Your task to perform on an android device: Clear all items from cart on amazon.com. Add amazon basics triple a to the cart on amazon.com Image 0: 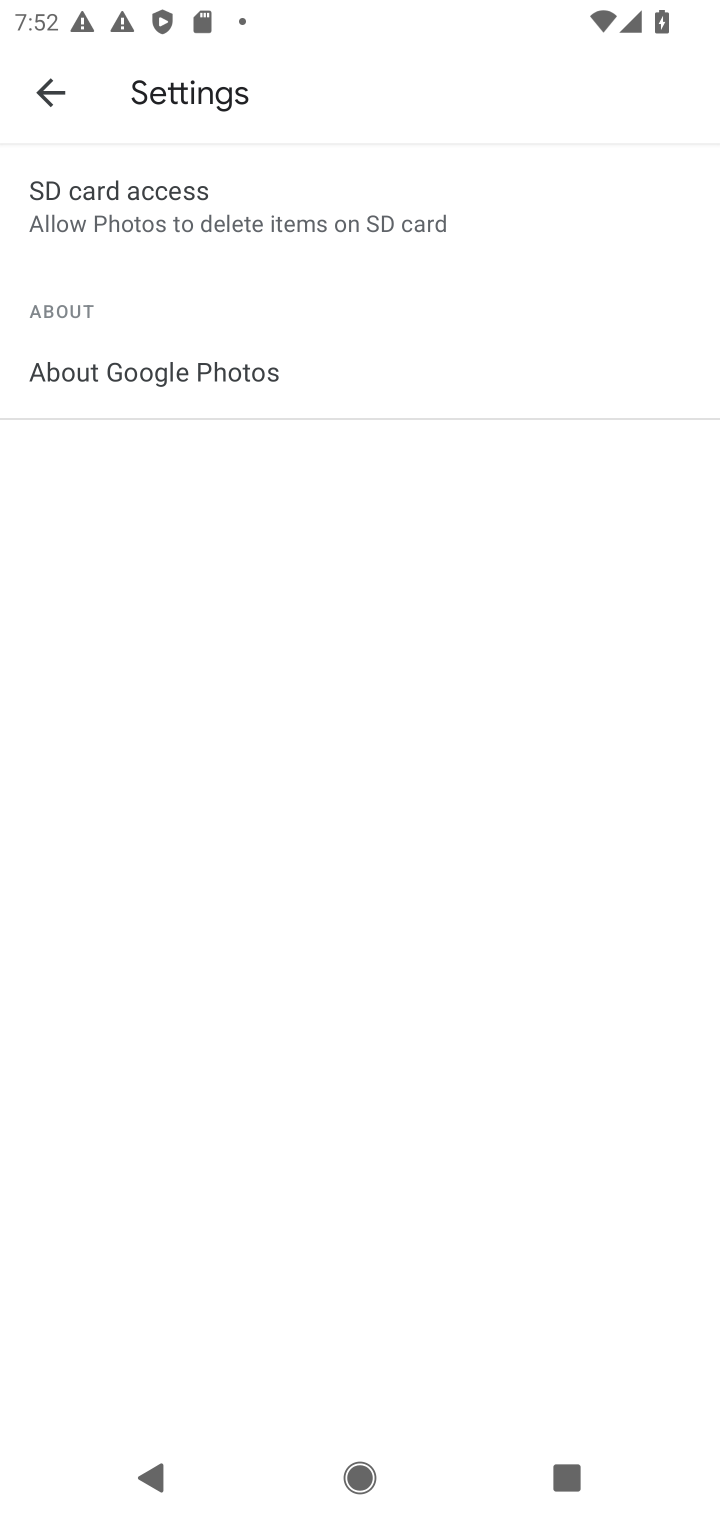
Step 0: press home button
Your task to perform on an android device: Clear all items from cart on amazon.com. Add amazon basics triple a to the cart on amazon.com Image 1: 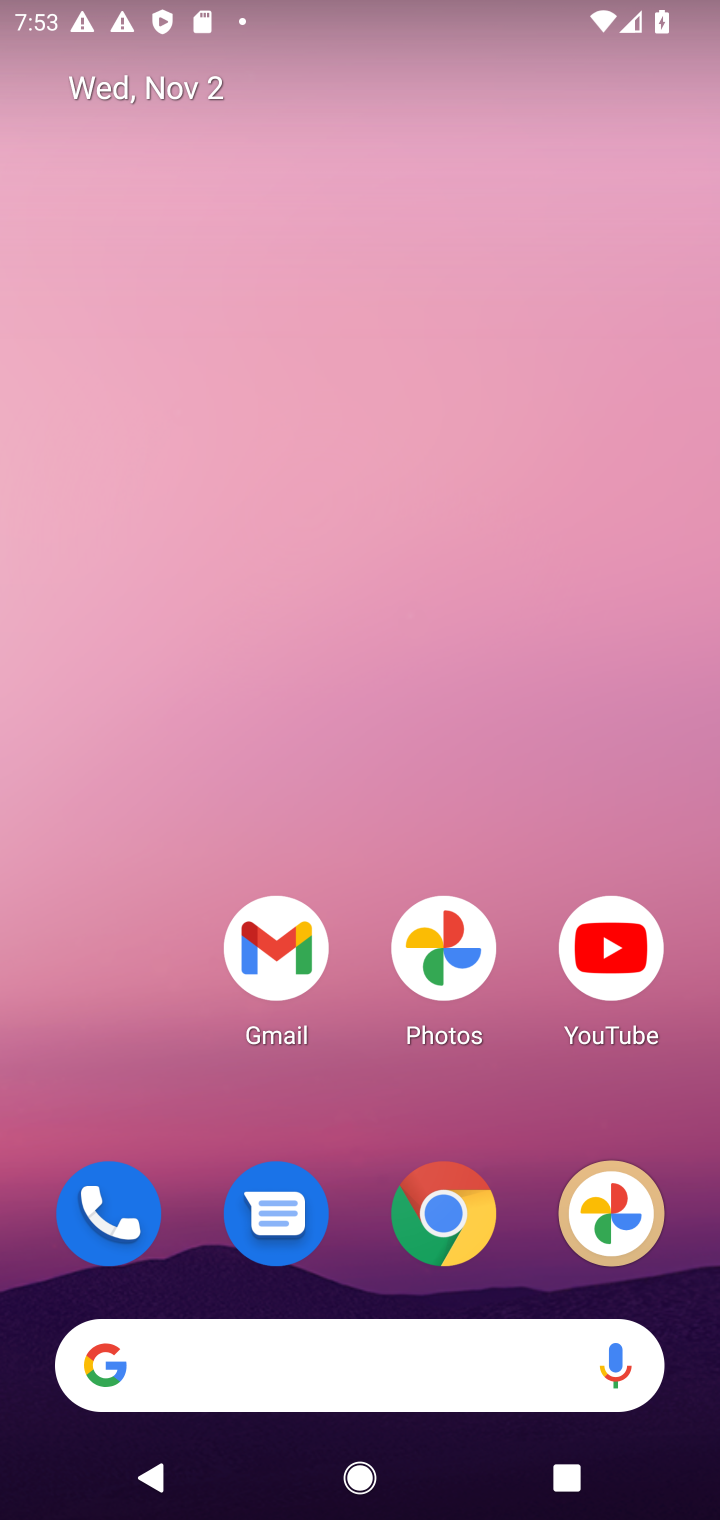
Step 1: click (446, 1227)
Your task to perform on an android device: Clear all items from cart on amazon.com. Add amazon basics triple a to the cart on amazon.com Image 2: 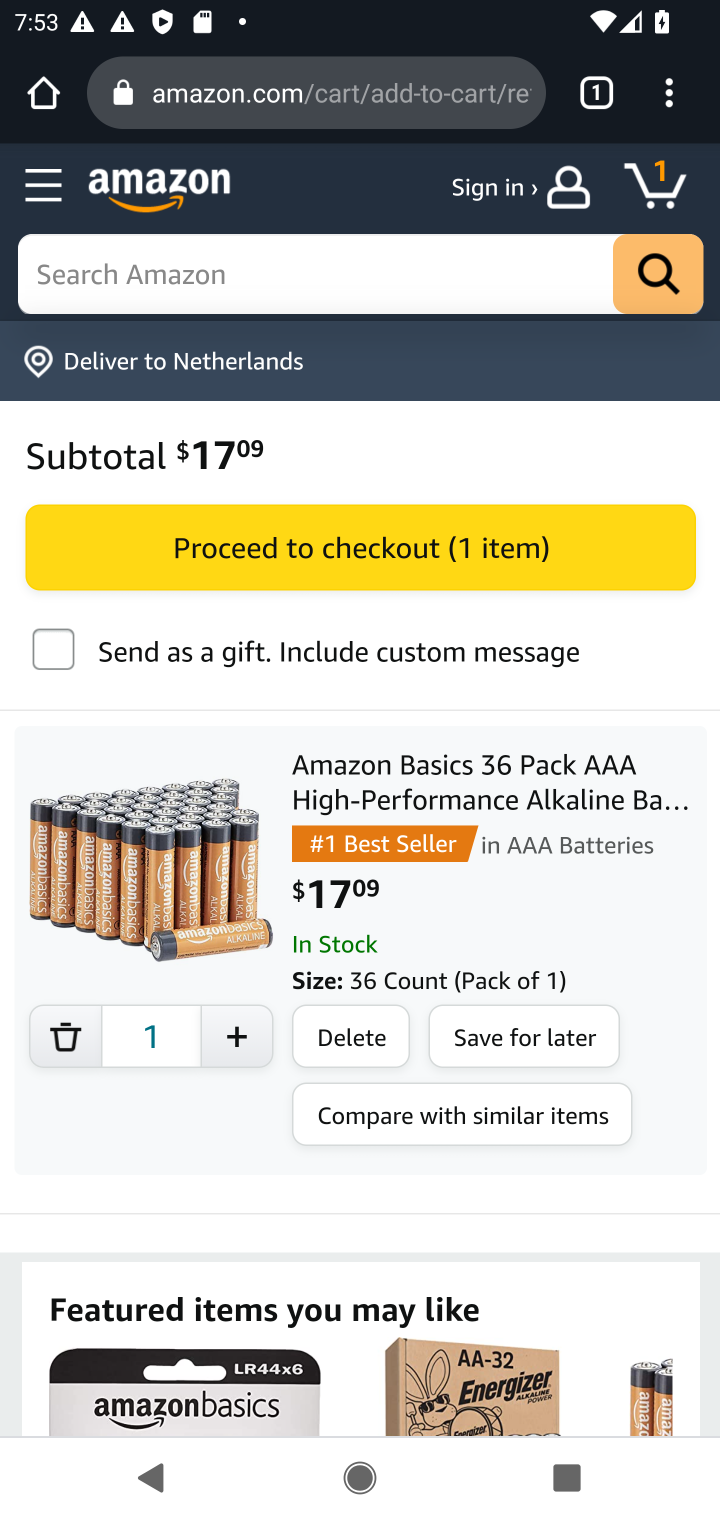
Step 2: click (652, 192)
Your task to perform on an android device: Clear all items from cart on amazon.com. Add amazon basics triple a to the cart on amazon.com Image 3: 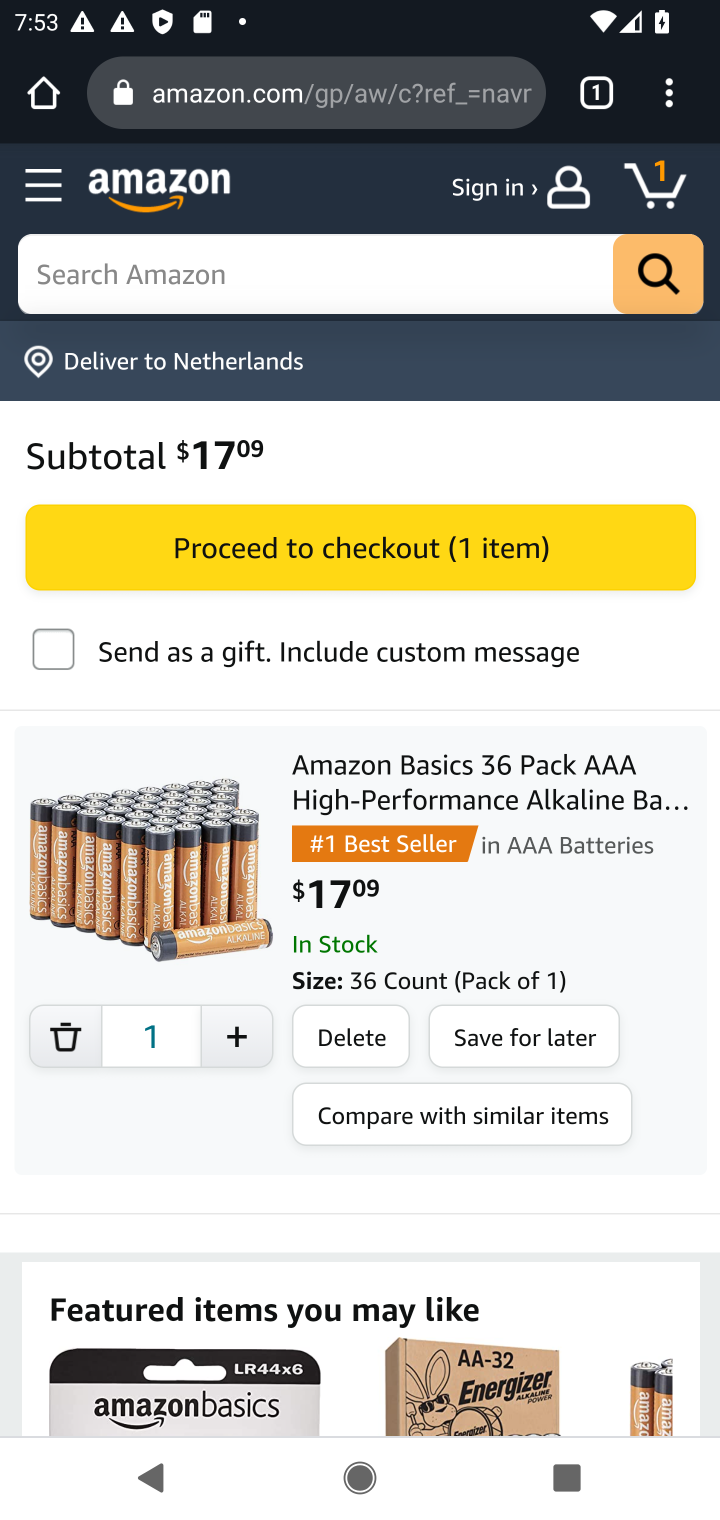
Step 3: click (372, 1044)
Your task to perform on an android device: Clear all items from cart on amazon.com. Add amazon basics triple a to the cart on amazon.com Image 4: 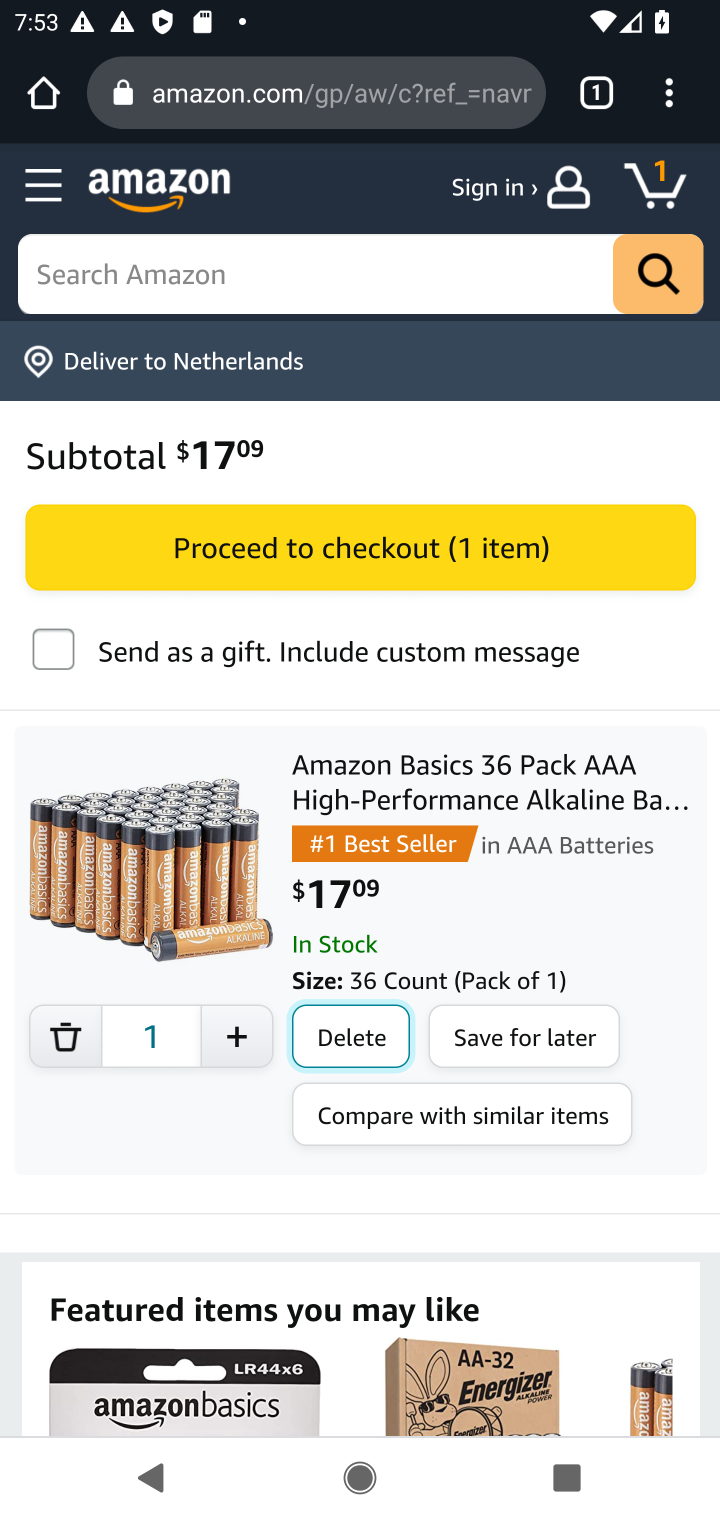
Step 4: click (352, 1040)
Your task to perform on an android device: Clear all items from cart on amazon.com. Add amazon basics triple a to the cart on amazon.com Image 5: 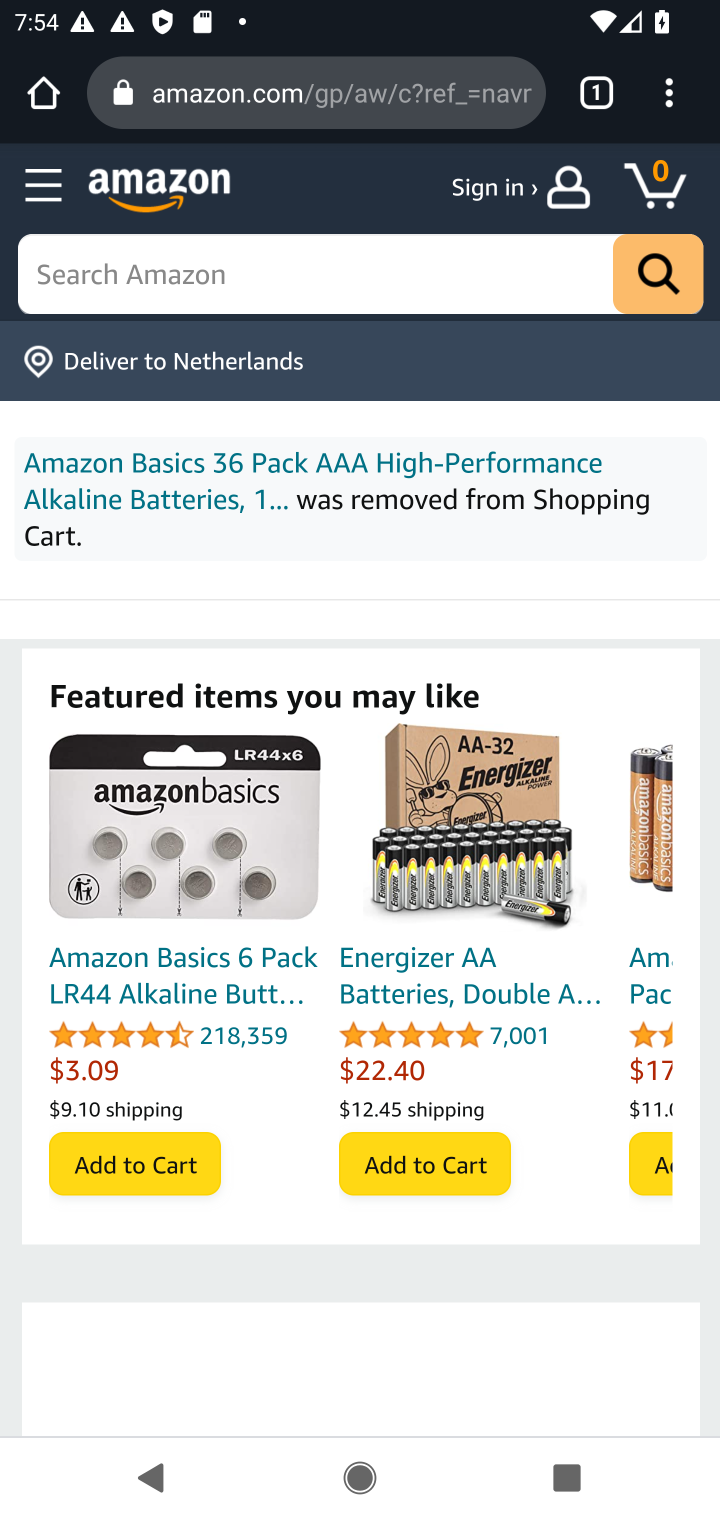
Step 5: click (313, 266)
Your task to perform on an android device: Clear all items from cart on amazon.com. Add amazon basics triple a to the cart on amazon.com Image 6: 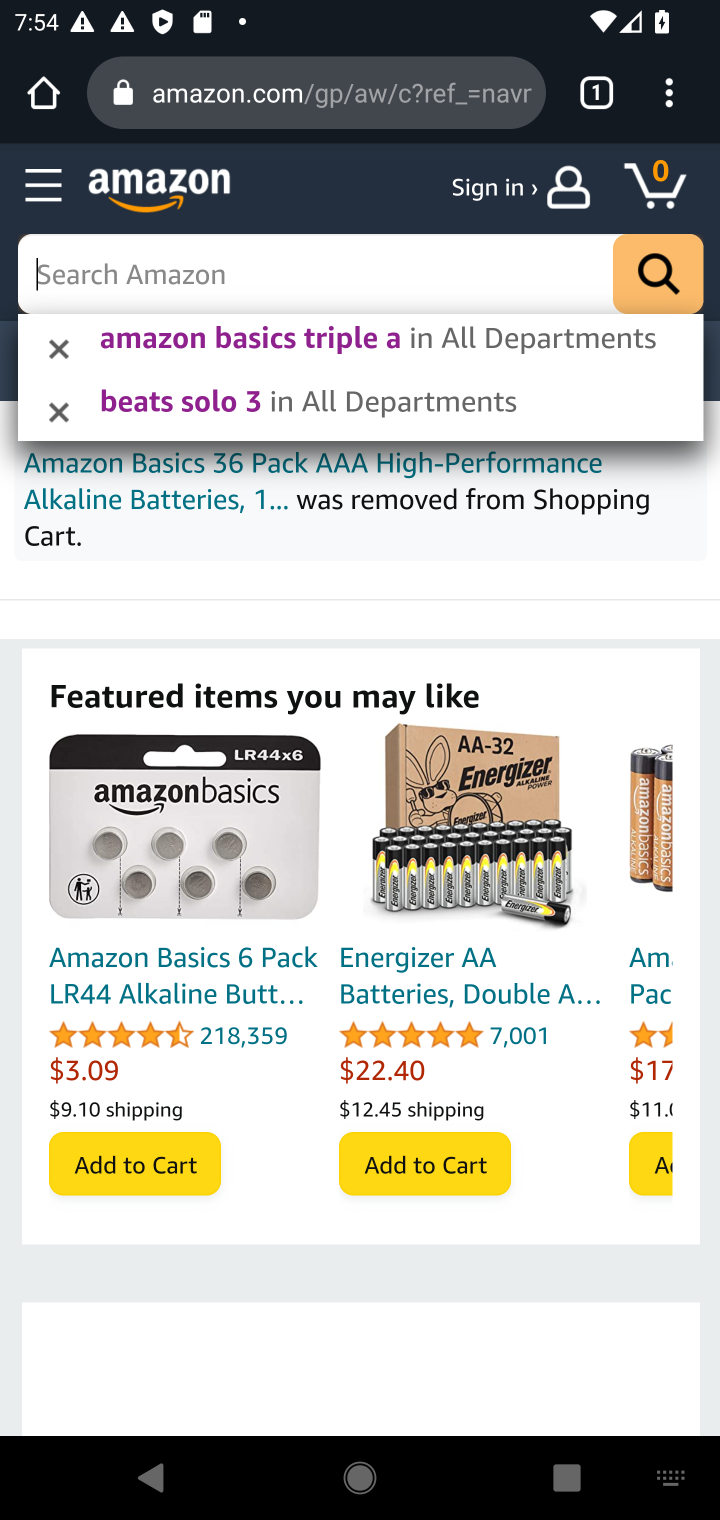
Step 6: type "basics triple a"
Your task to perform on an android device: Clear all items from cart on amazon.com. Add amazon basics triple a to the cart on amazon.com Image 7: 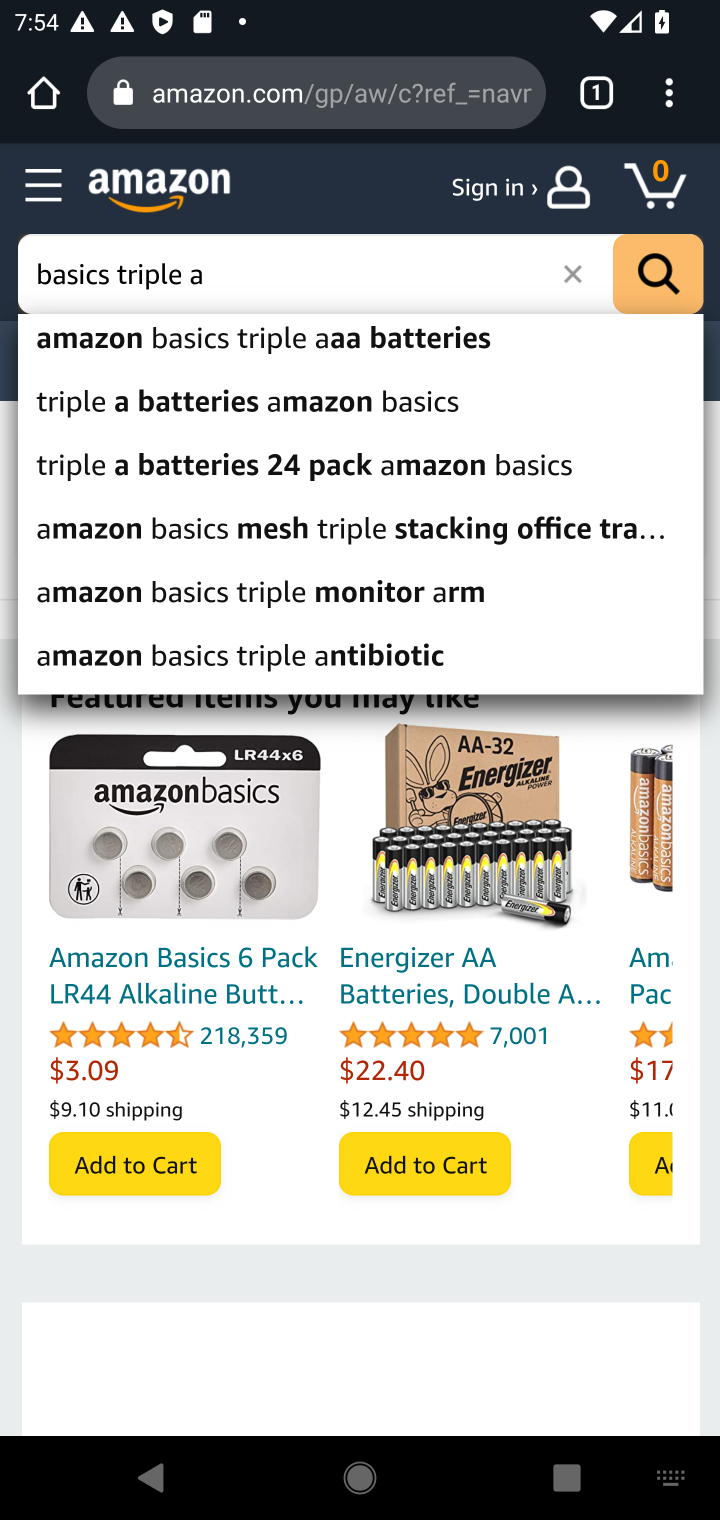
Step 7: click (235, 343)
Your task to perform on an android device: Clear all items from cart on amazon.com. Add amazon basics triple a to the cart on amazon.com Image 8: 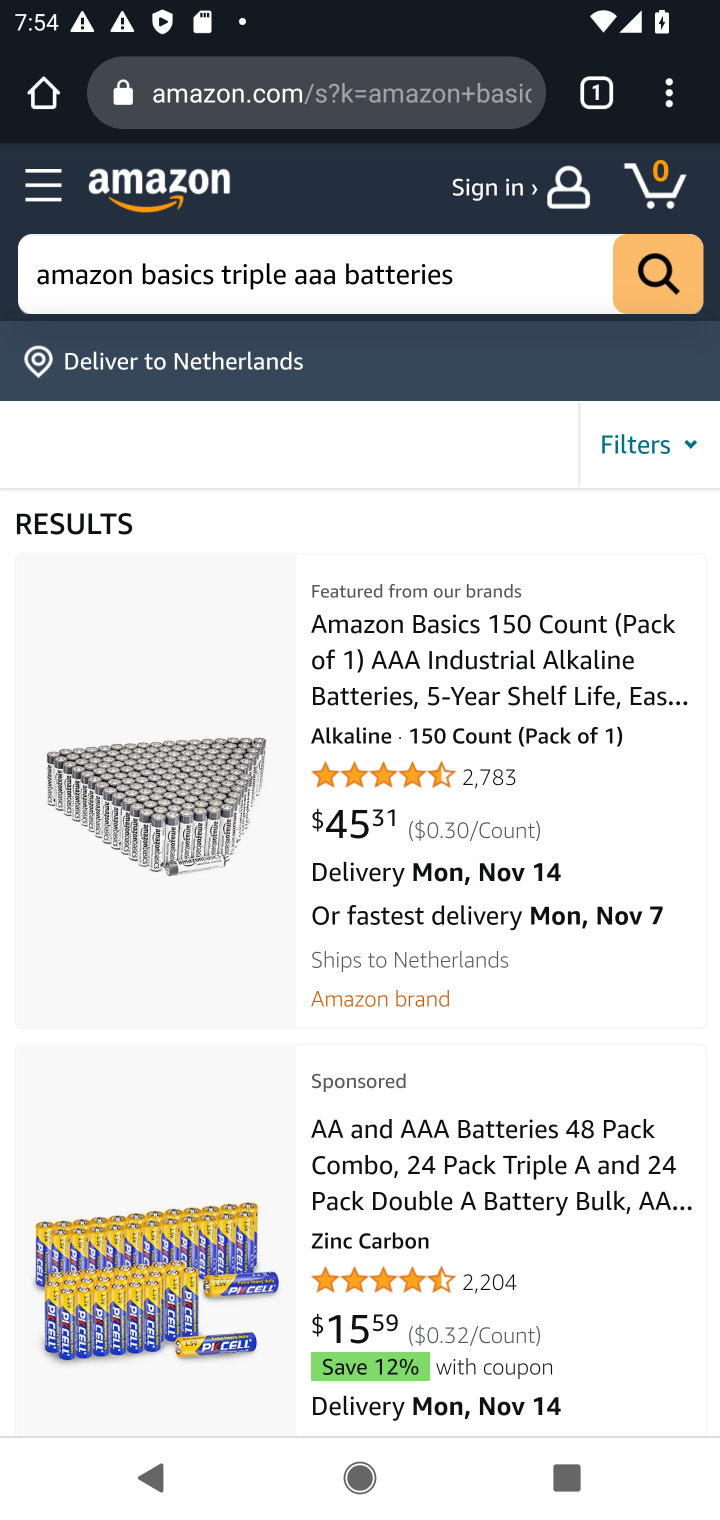
Step 8: click (388, 750)
Your task to perform on an android device: Clear all items from cart on amazon.com. Add amazon basics triple a to the cart on amazon.com Image 9: 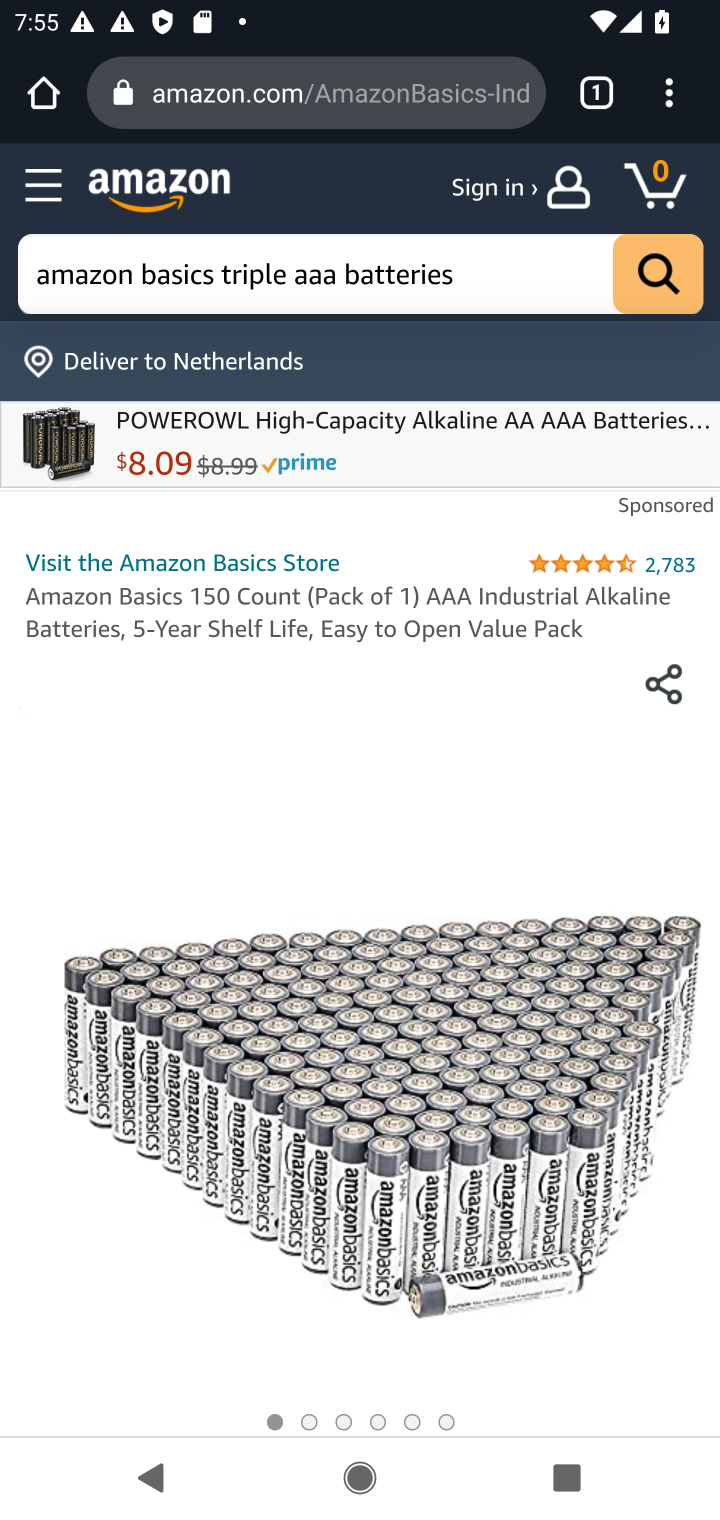
Step 9: drag from (396, 758) to (440, 379)
Your task to perform on an android device: Clear all items from cart on amazon.com. Add amazon basics triple a to the cart on amazon.com Image 10: 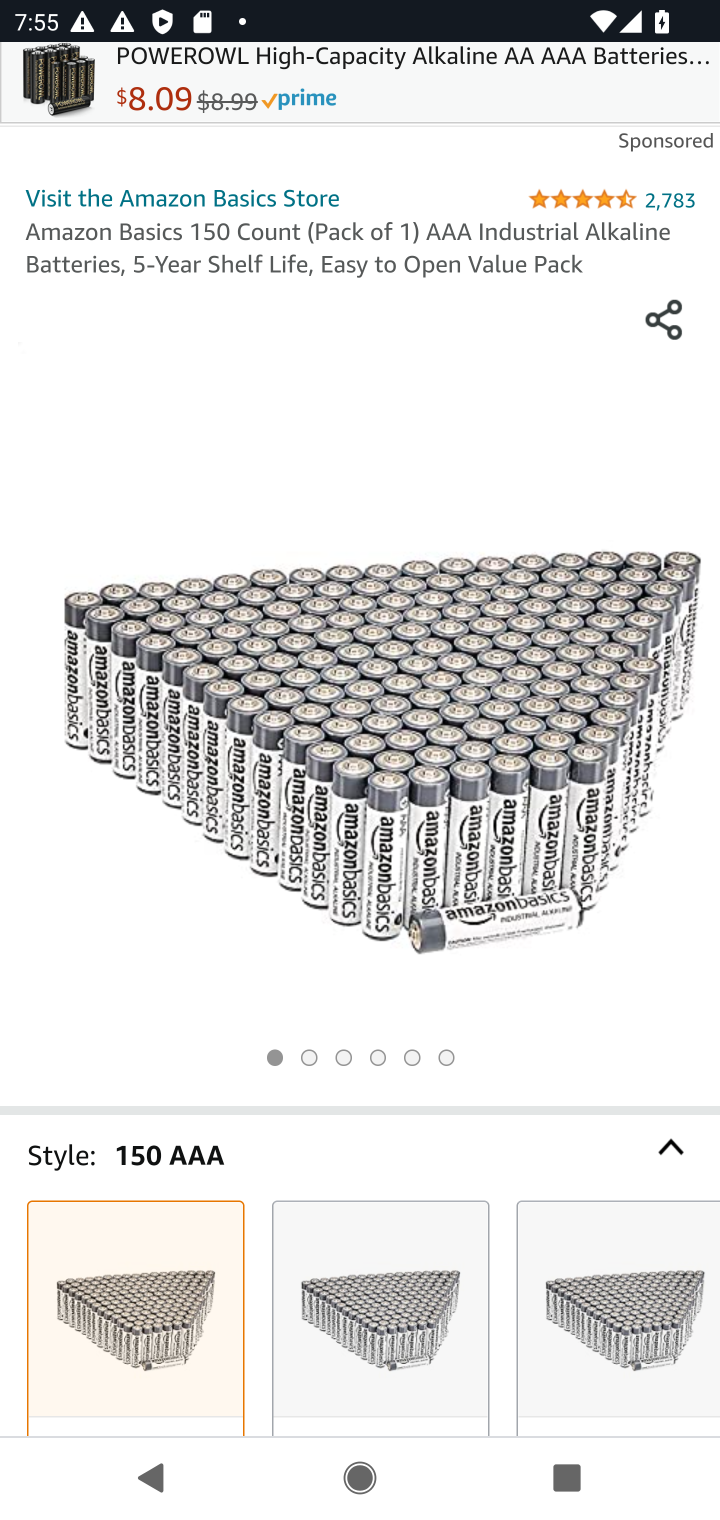
Step 10: drag from (318, 877) to (366, 17)
Your task to perform on an android device: Clear all items from cart on amazon.com. Add amazon basics triple a to the cart on amazon.com Image 11: 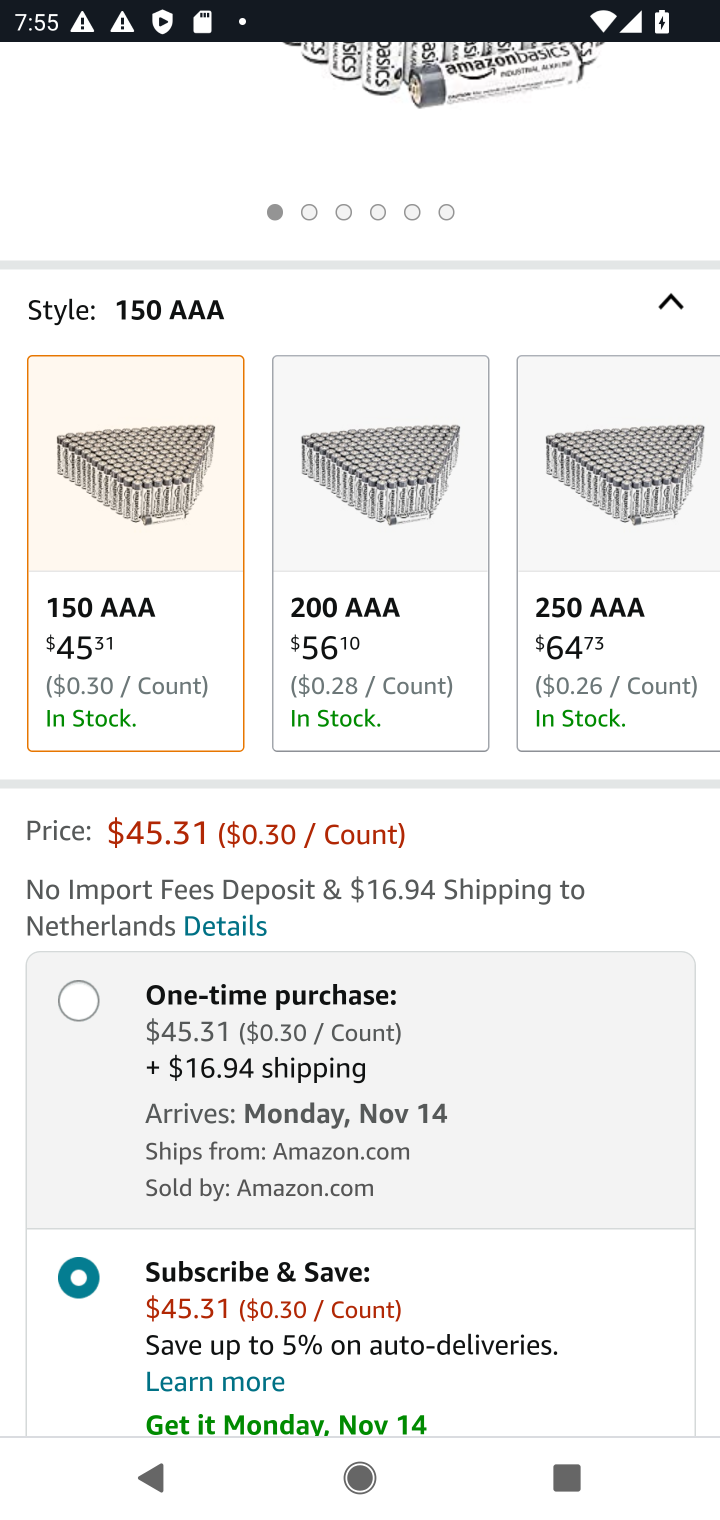
Step 11: click (83, 1015)
Your task to perform on an android device: Clear all items from cart on amazon.com. Add amazon basics triple a to the cart on amazon.com Image 12: 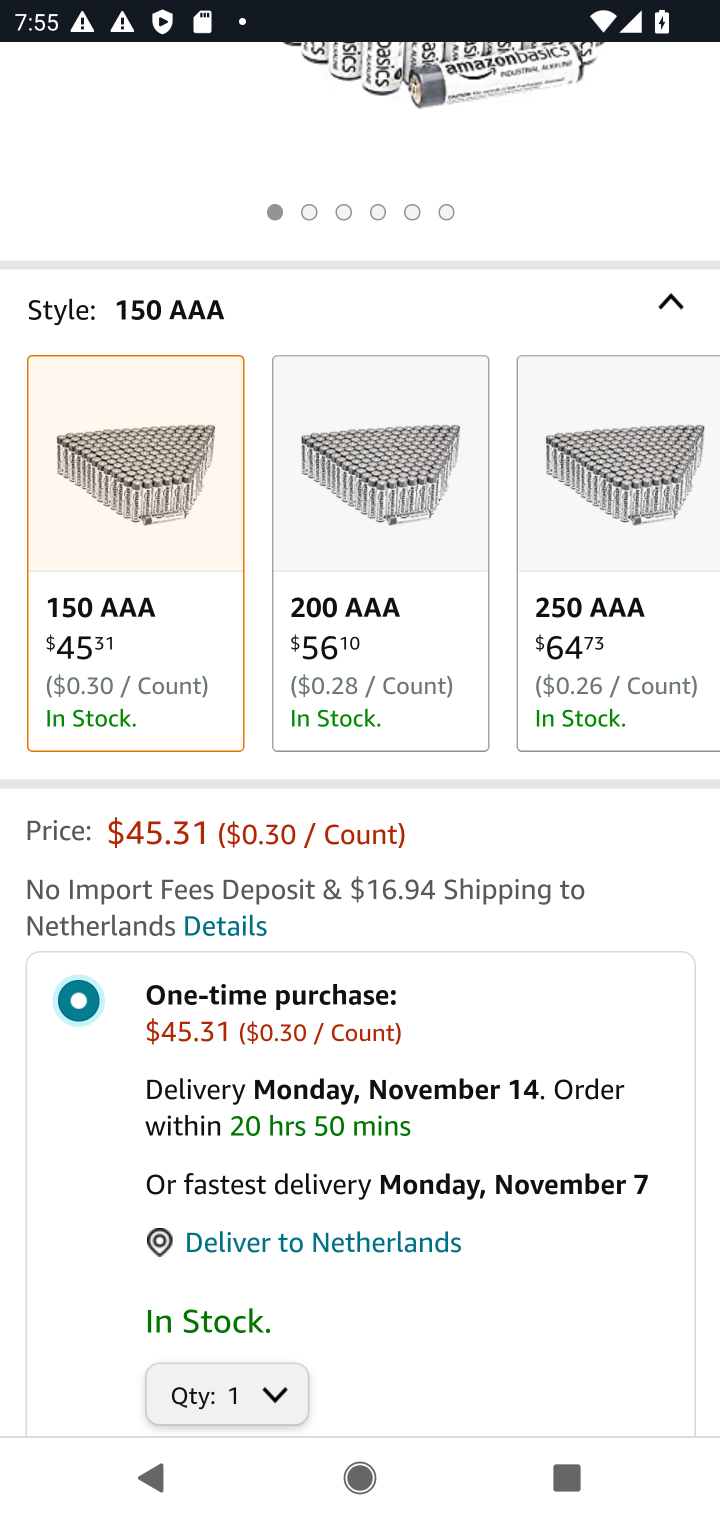
Step 12: drag from (385, 1192) to (401, 508)
Your task to perform on an android device: Clear all items from cart on amazon.com. Add amazon basics triple a to the cart on amazon.com Image 13: 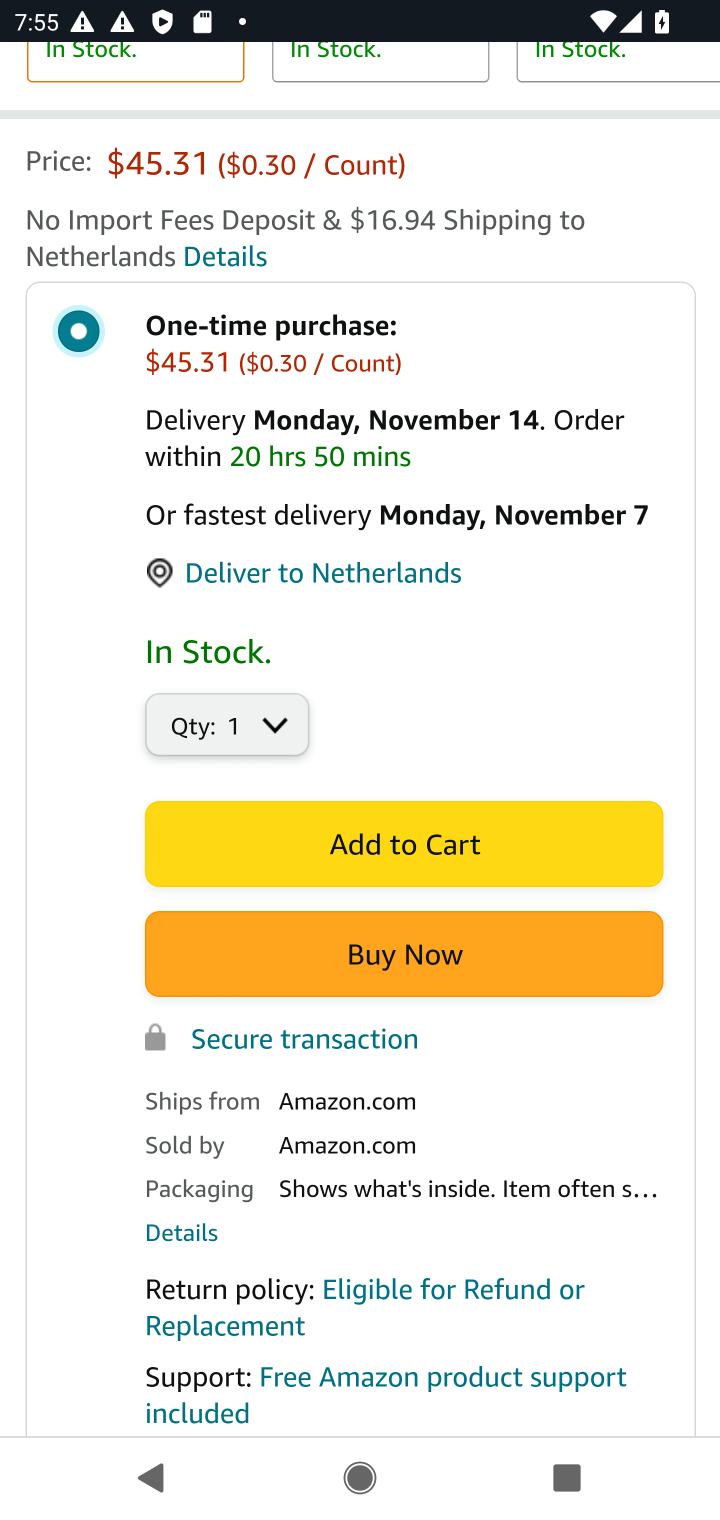
Step 13: click (406, 847)
Your task to perform on an android device: Clear all items from cart on amazon.com. Add amazon basics triple a to the cart on amazon.com Image 14: 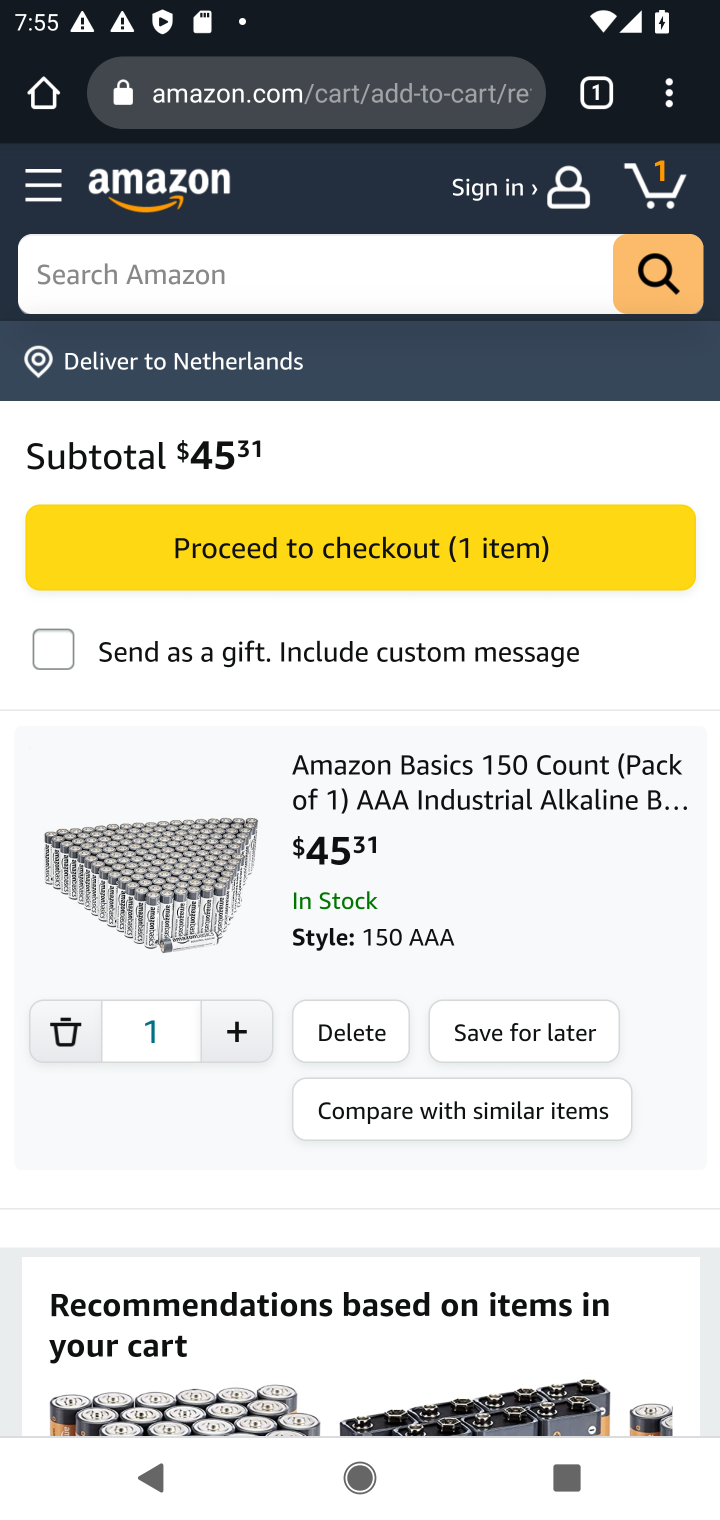
Step 14: task complete